Your task to perform on an android device: Open the calendar app, open the side menu, and click the "Day" option Image 0: 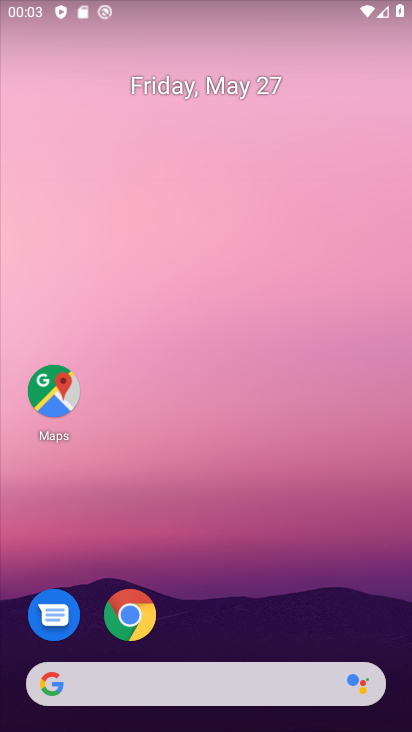
Step 0: drag from (369, 620) to (374, 264)
Your task to perform on an android device: Open the calendar app, open the side menu, and click the "Day" option Image 1: 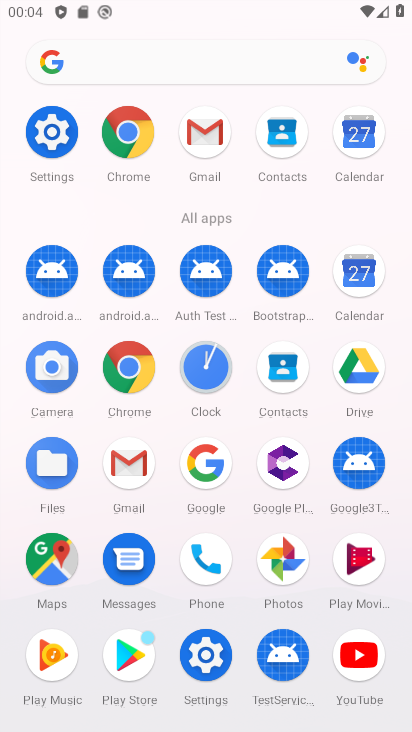
Step 1: click (367, 296)
Your task to perform on an android device: Open the calendar app, open the side menu, and click the "Day" option Image 2: 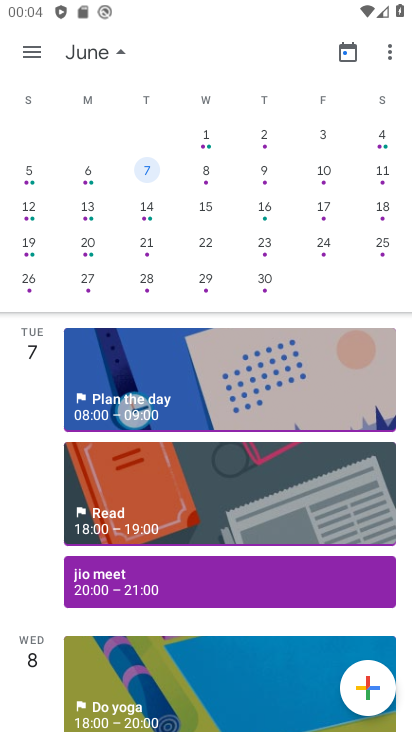
Step 2: click (39, 51)
Your task to perform on an android device: Open the calendar app, open the side menu, and click the "Day" option Image 3: 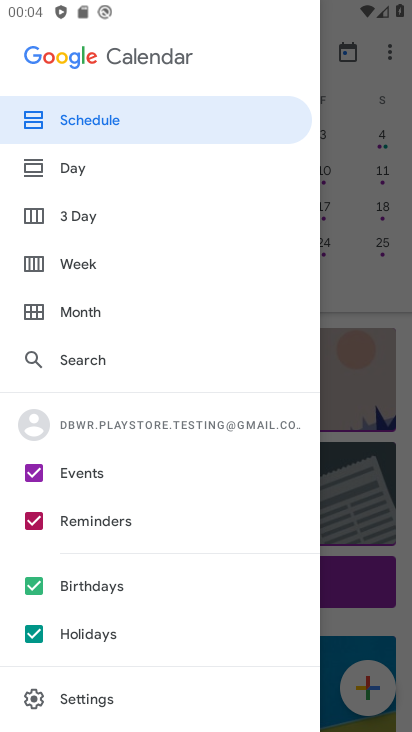
Step 3: click (116, 173)
Your task to perform on an android device: Open the calendar app, open the side menu, and click the "Day" option Image 4: 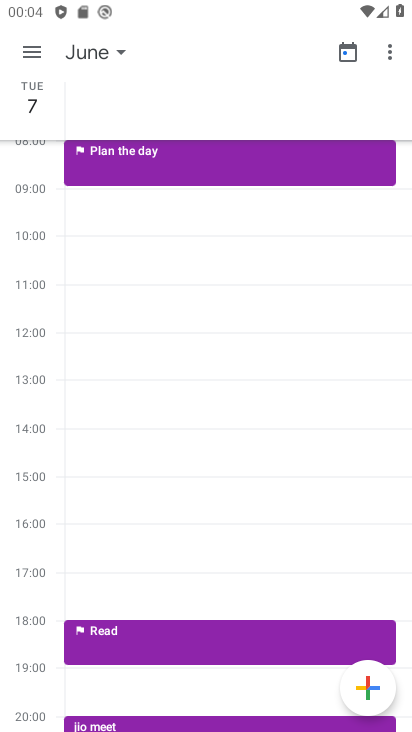
Step 4: task complete